Your task to perform on an android device: What is the recent news? Image 0: 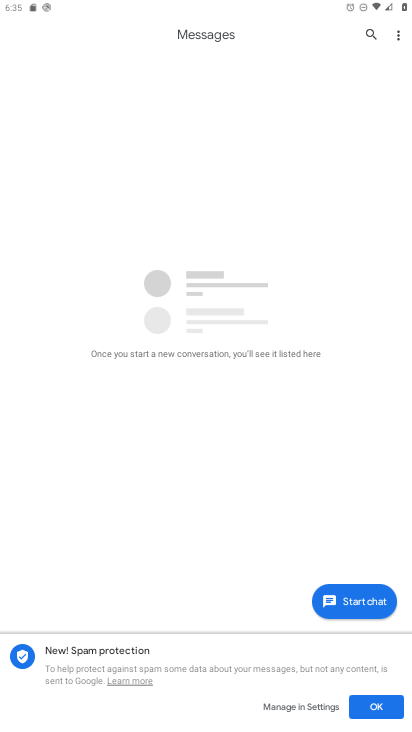
Step 0: press home button
Your task to perform on an android device: What is the recent news? Image 1: 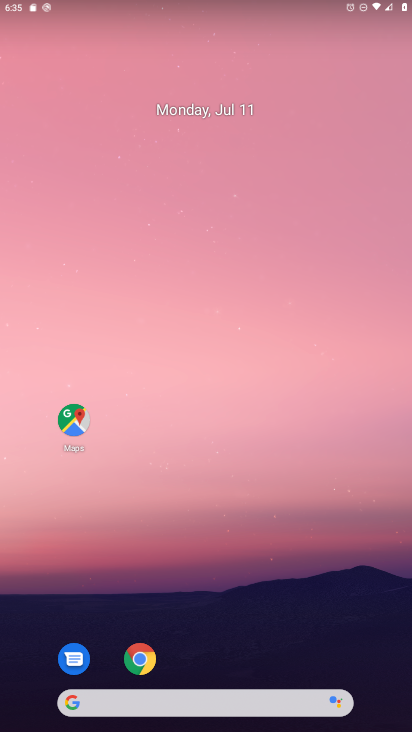
Step 1: task complete